Your task to perform on an android device: Go to display settings Image 0: 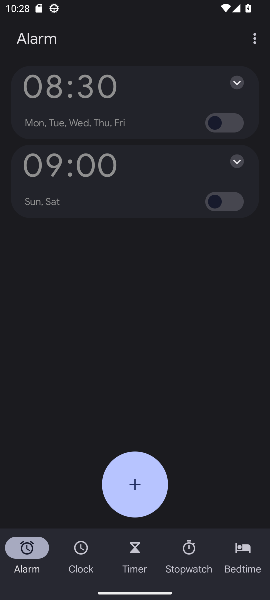
Step 0: click (258, 34)
Your task to perform on an android device: Go to display settings Image 1: 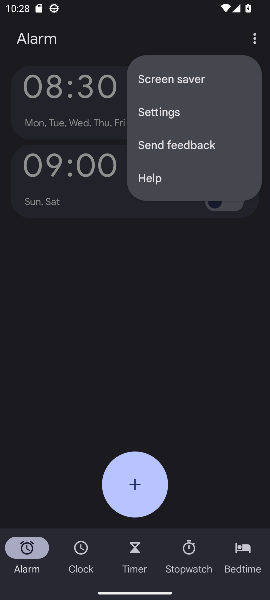
Step 1: press home button
Your task to perform on an android device: Go to display settings Image 2: 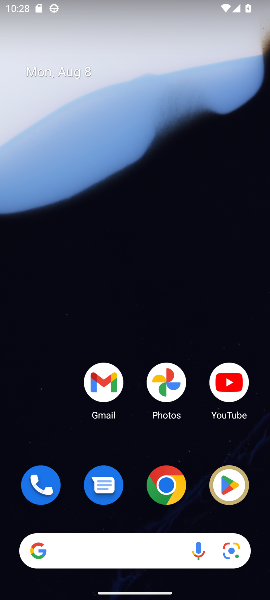
Step 2: drag from (127, 497) to (123, 51)
Your task to perform on an android device: Go to display settings Image 3: 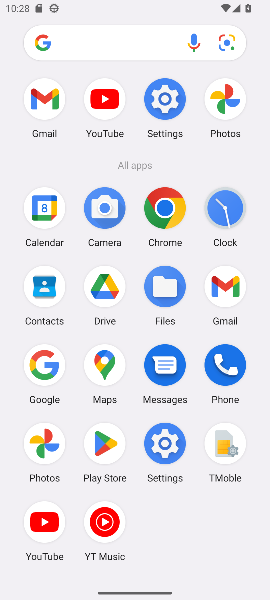
Step 3: click (165, 435)
Your task to perform on an android device: Go to display settings Image 4: 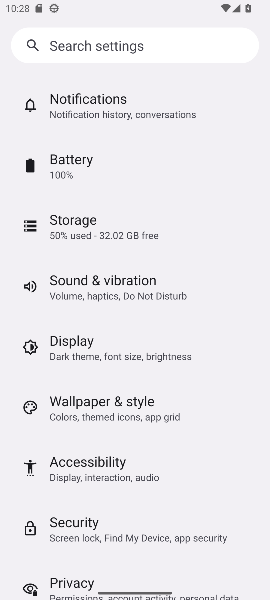
Step 4: drag from (130, 504) to (147, 171)
Your task to perform on an android device: Go to display settings Image 5: 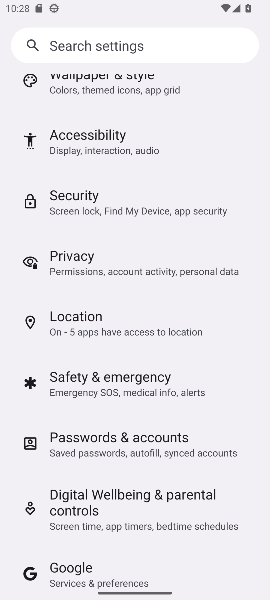
Step 5: drag from (142, 209) to (123, 543)
Your task to perform on an android device: Go to display settings Image 6: 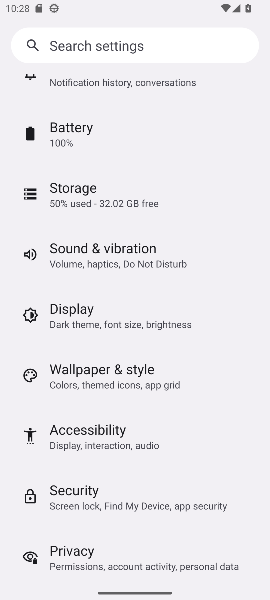
Step 6: drag from (156, 172) to (137, 322)
Your task to perform on an android device: Go to display settings Image 7: 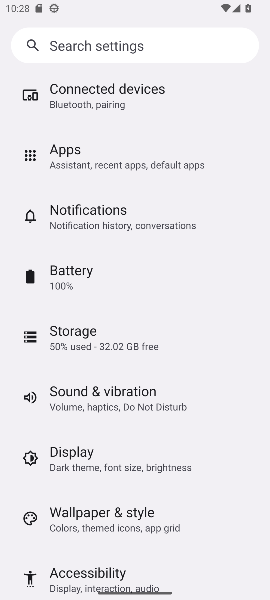
Step 7: click (52, 451)
Your task to perform on an android device: Go to display settings Image 8: 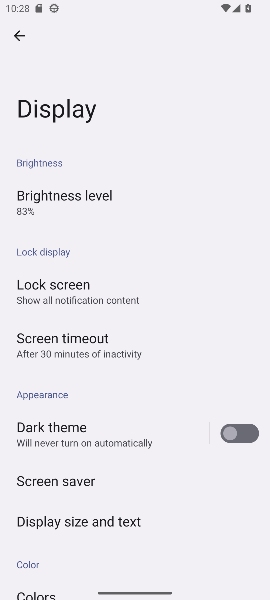
Step 8: task complete